Your task to perform on an android device: Open the web browser Image 0: 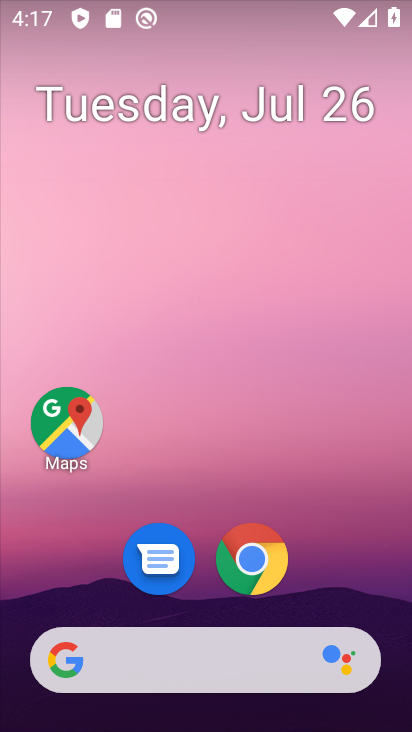
Step 0: click (263, 565)
Your task to perform on an android device: Open the web browser Image 1: 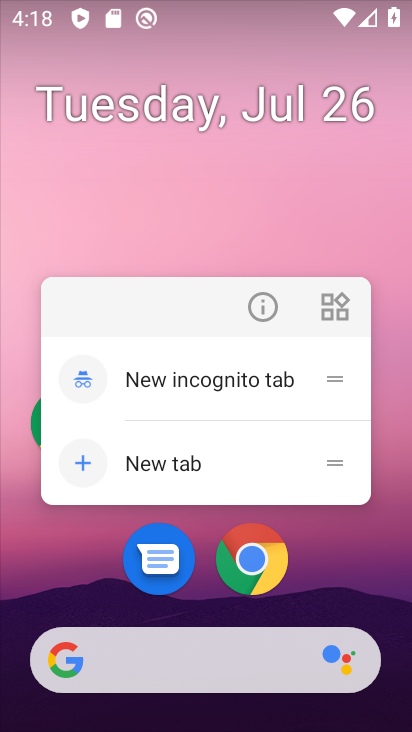
Step 1: click (256, 568)
Your task to perform on an android device: Open the web browser Image 2: 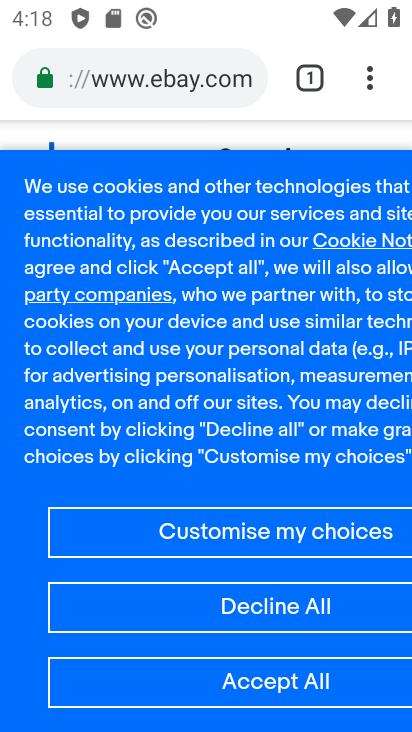
Step 2: task complete